Your task to perform on an android device: open device folders in google photos Image 0: 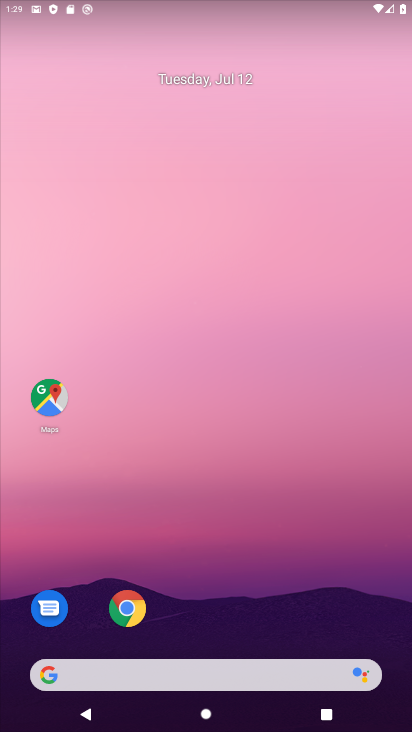
Step 0: drag from (276, 616) to (184, 154)
Your task to perform on an android device: open device folders in google photos Image 1: 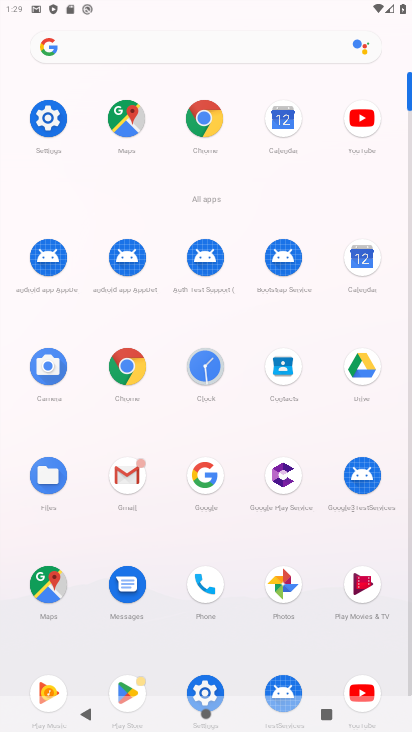
Step 1: click (292, 593)
Your task to perform on an android device: open device folders in google photos Image 2: 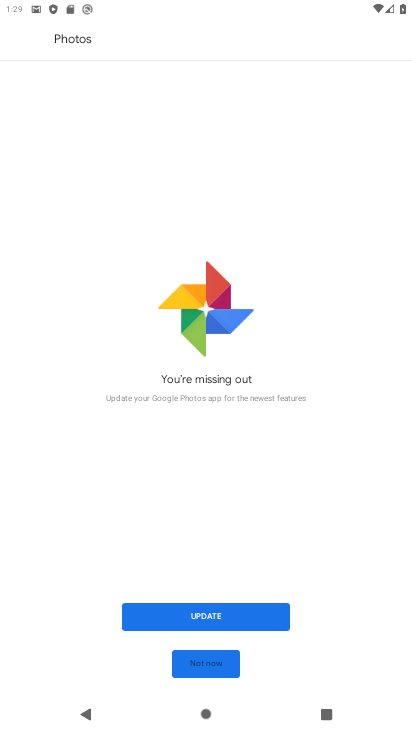
Step 2: click (263, 623)
Your task to perform on an android device: open device folders in google photos Image 3: 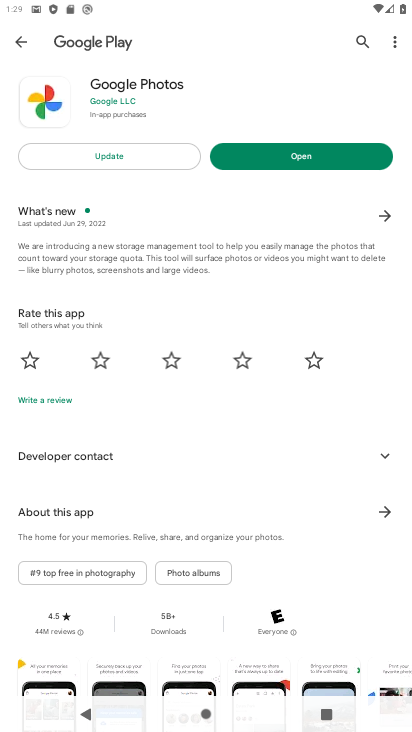
Step 3: click (115, 152)
Your task to perform on an android device: open device folders in google photos Image 4: 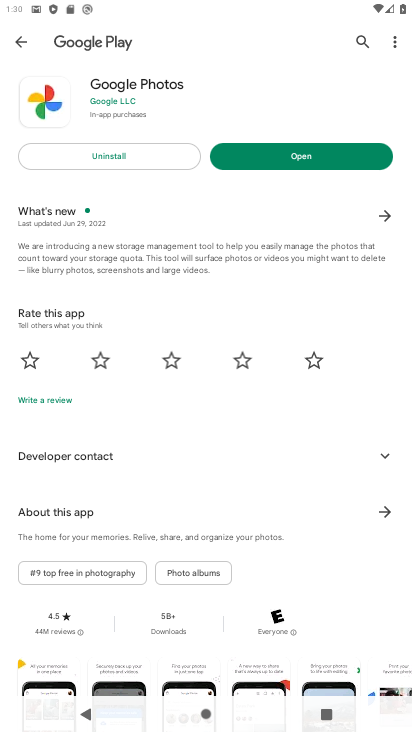
Step 4: click (287, 154)
Your task to perform on an android device: open device folders in google photos Image 5: 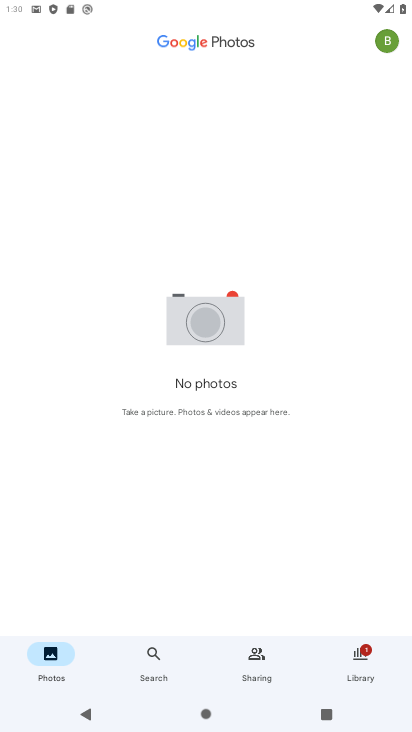
Step 5: click (387, 38)
Your task to perform on an android device: open device folders in google photos Image 6: 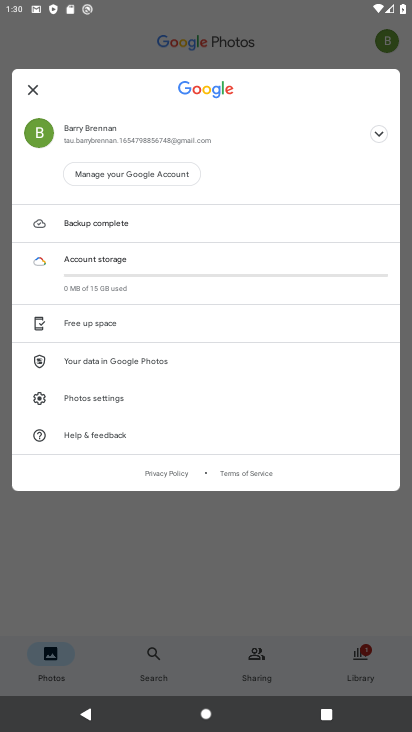
Step 6: click (341, 537)
Your task to perform on an android device: open device folders in google photos Image 7: 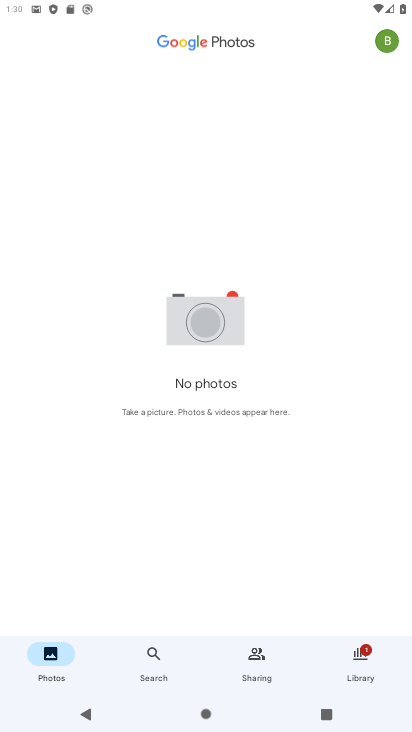
Step 7: click (361, 657)
Your task to perform on an android device: open device folders in google photos Image 8: 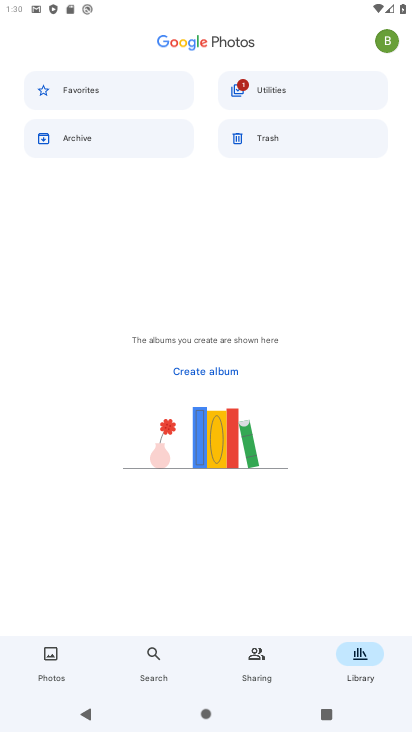
Step 8: click (263, 666)
Your task to perform on an android device: open device folders in google photos Image 9: 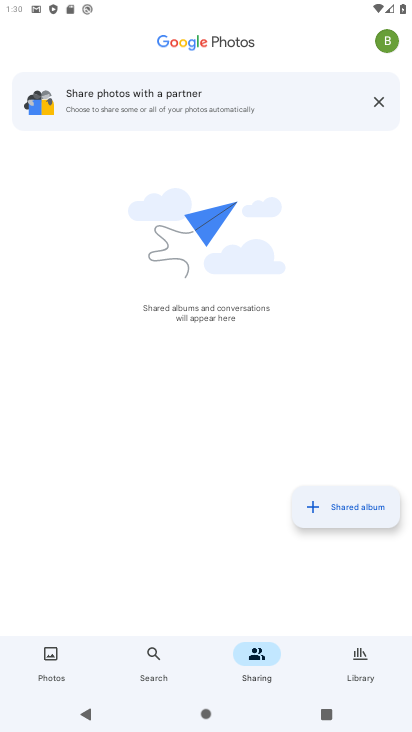
Step 9: click (150, 676)
Your task to perform on an android device: open device folders in google photos Image 10: 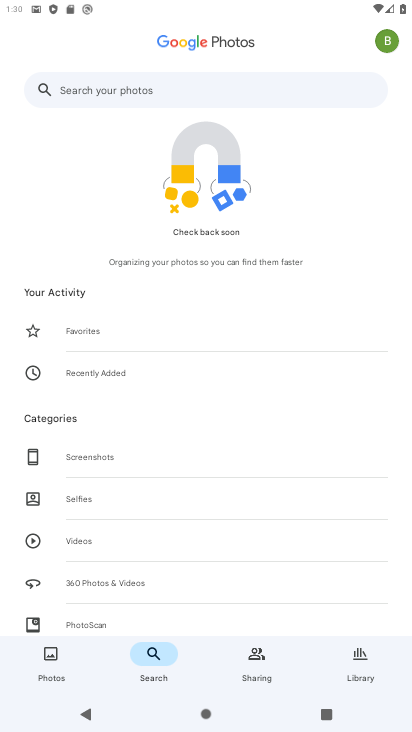
Step 10: task complete